Your task to perform on an android device: all mails in gmail Image 0: 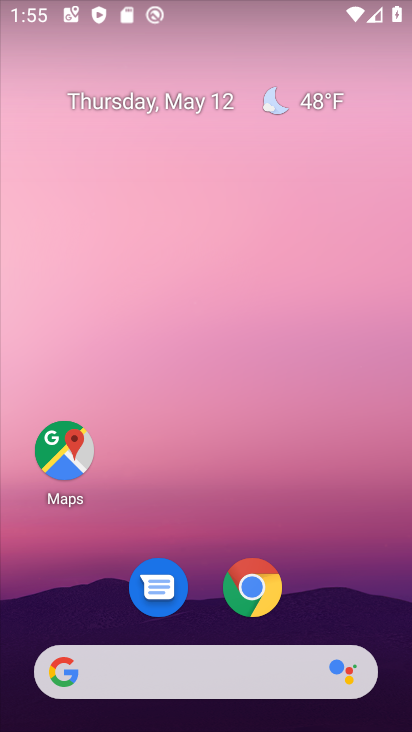
Step 0: drag from (251, 662) to (294, 273)
Your task to perform on an android device: all mails in gmail Image 1: 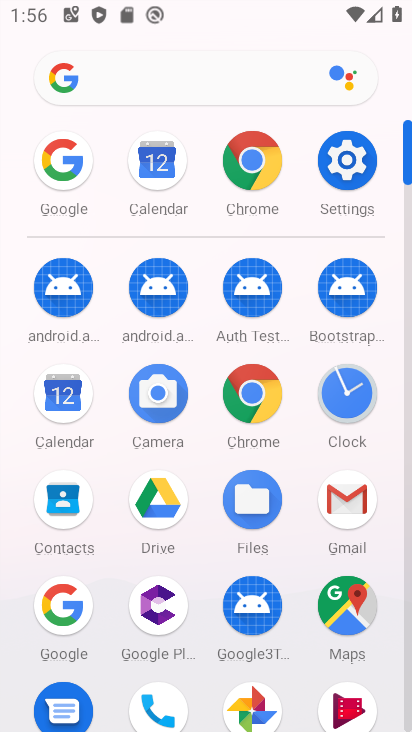
Step 1: click (349, 518)
Your task to perform on an android device: all mails in gmail Image 2: 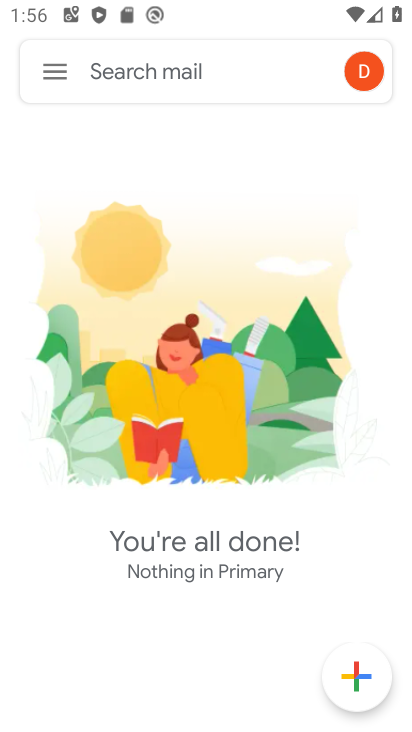
Step 2: click (61, 75)
Your task to perform on an android device: all mails in gmail Image 3: 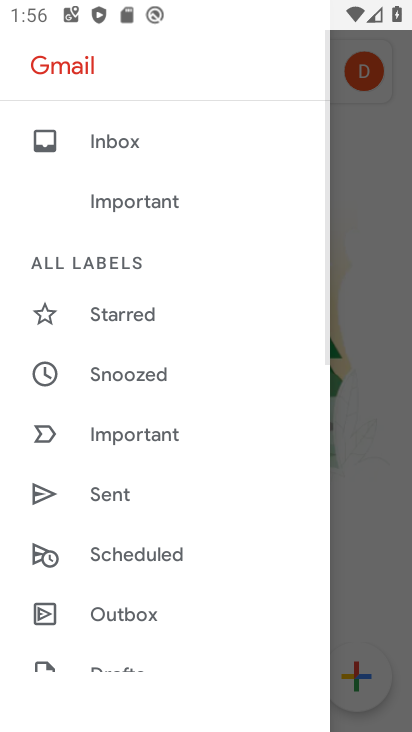
Step 3: drag from (169, 613) to (170, 375)
Your task to perform on an android device: all mails in gmail Image 4: 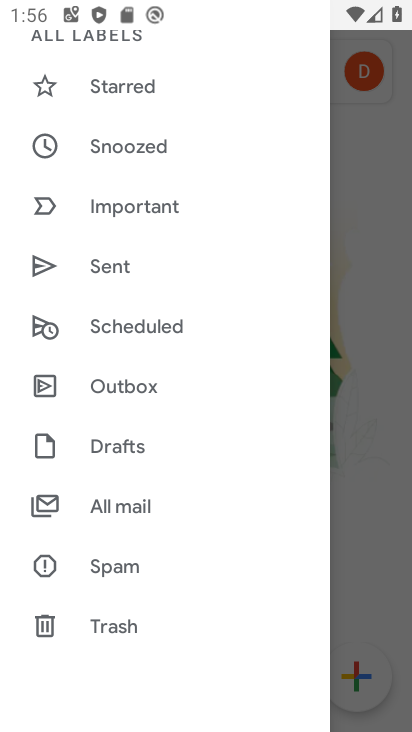
Step 4: click (128, 503)
Your task to perform on an android device: all mails in gmail Image 5: 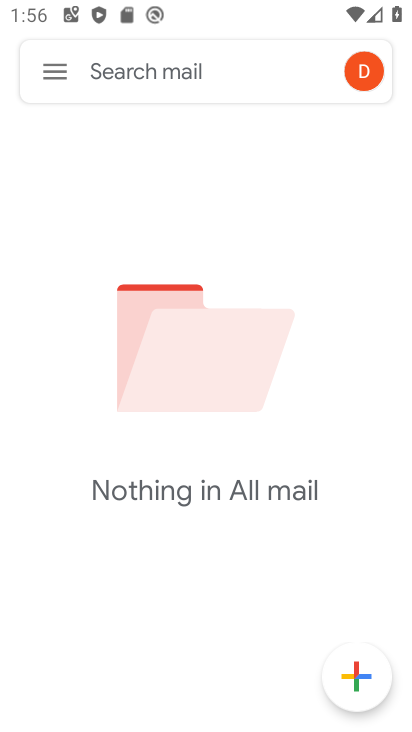
Step 5: task complete